Your task to perform on an android device: Open the web browser Image 0: 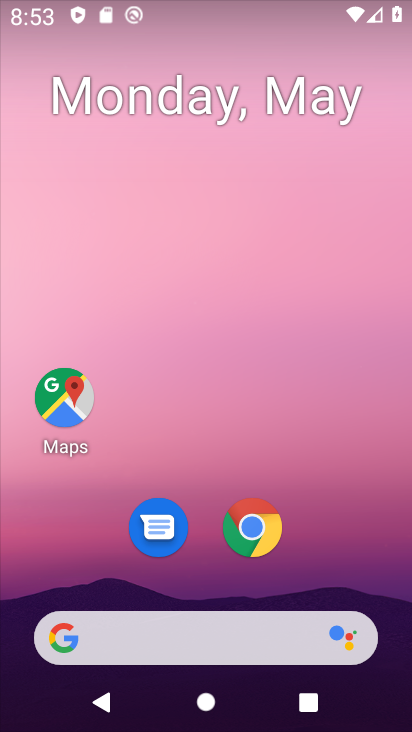
Step 0: drag from (332, 578) to (279, 5)
Your task to perform on an android device: Open the web browser Image 1: 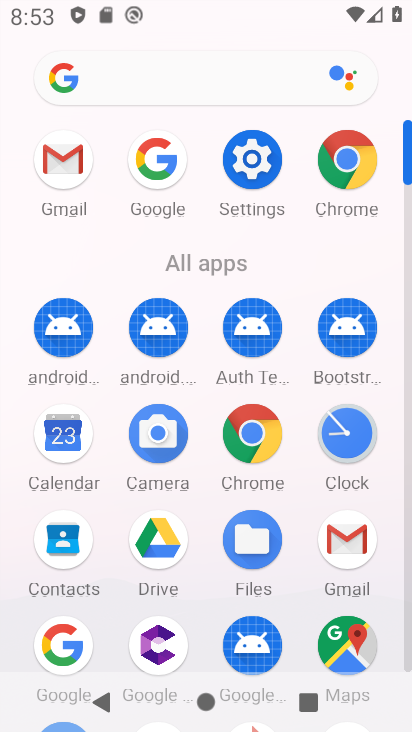
Step 1: click (11, 186)
Your task to perform on an android device: Open the web browser Image 2: 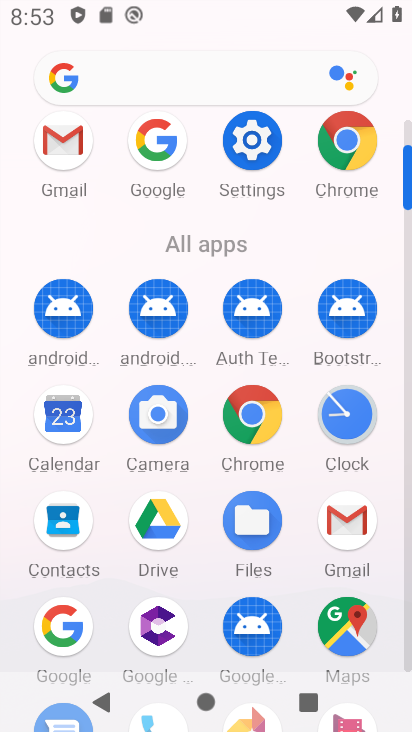
Step 2: click (252, 412)
Your task to perform on an android device: Open the web browser Image 3: 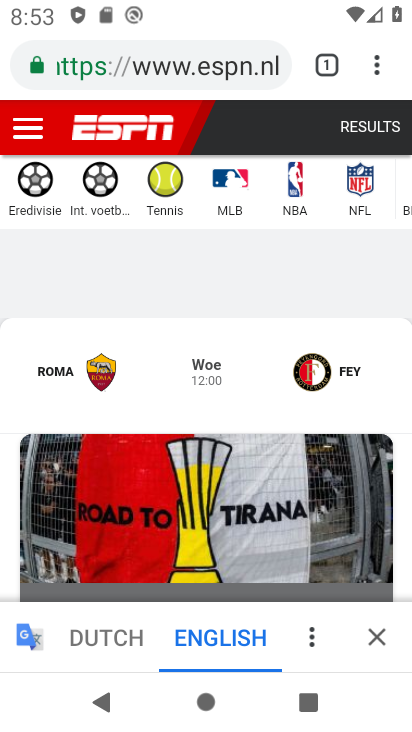
Step 3: task complete